Your task to perform on an android device: What is the recent news? Image 0: 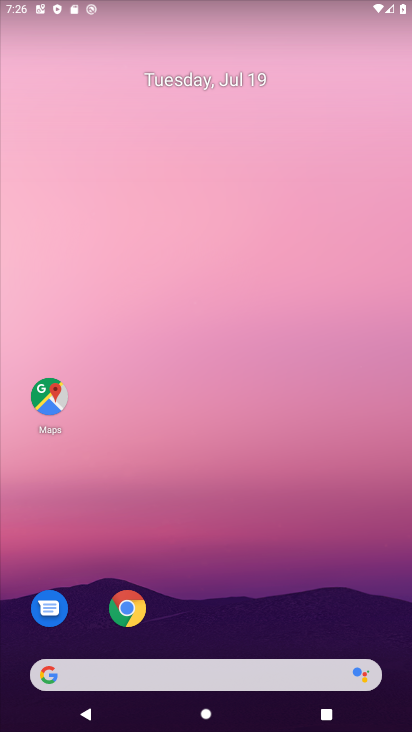
Step 0: click (187, 672)
Your task to perform on an android device: What is the recent news? Image 1: 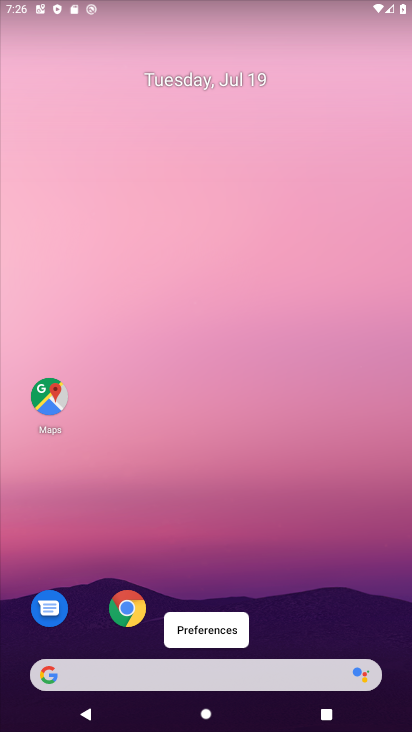
Step 1: click (151, 671)
Your task to perform on an android device: What is the recent news? Image 2: 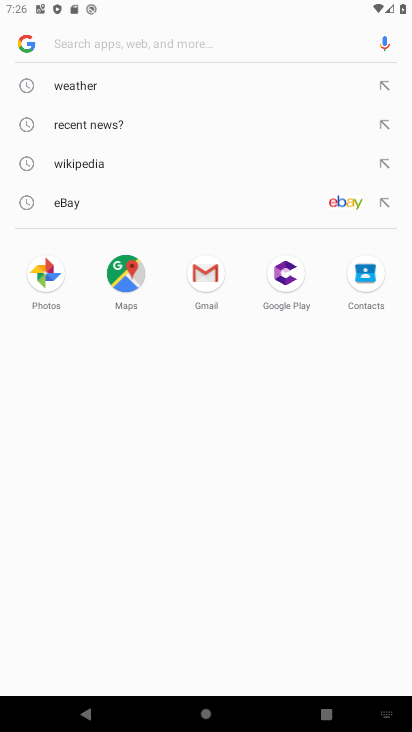
Step 2: click (96, 120)
Your task to perform on an android device: What is the recent news? Image 3: 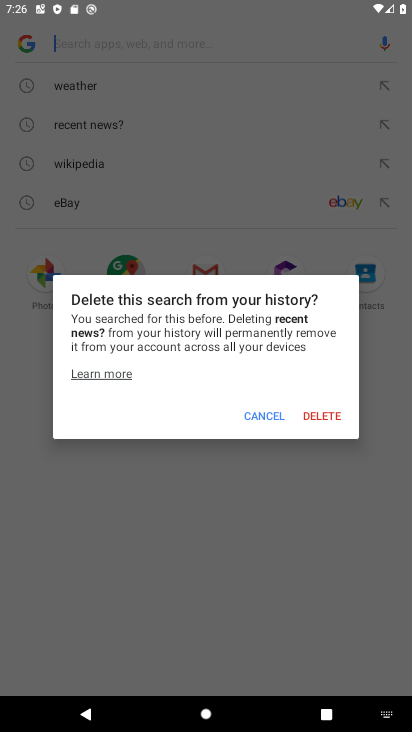
Step 3: click (268, 411)
Your task to perform on an android device: What is the recent news? Image 4: 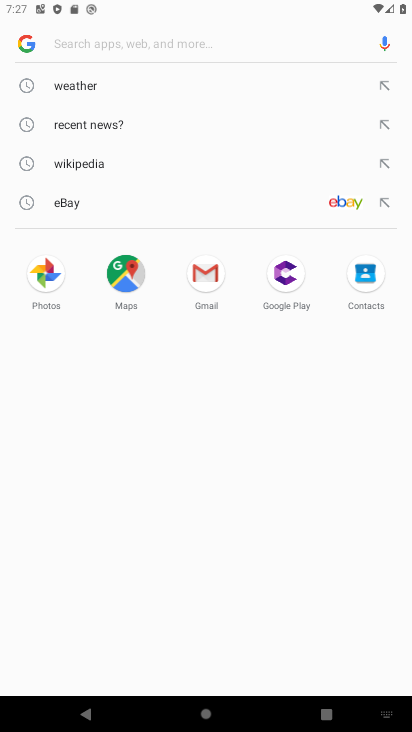
Step 4: click (101, 126)
Your task to perform on an android device: What is the recent news? Image 5: 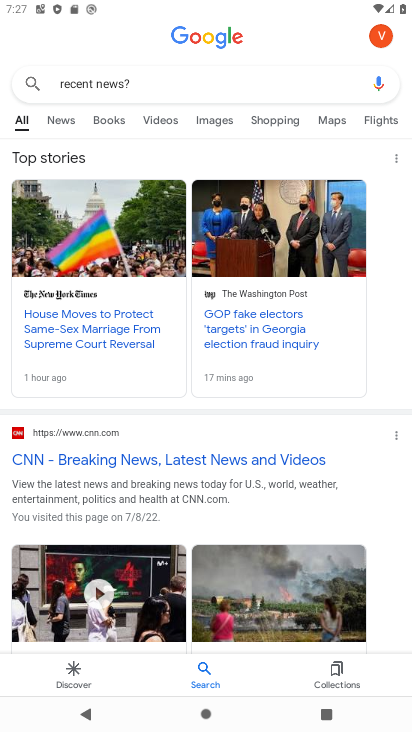
Step 5: click (57, 125)
Your task to perform on an android device: What is the recent news? Image 6: 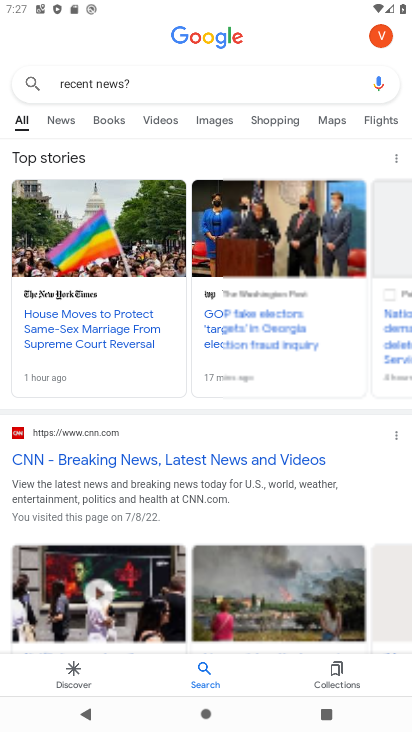
Step 6: click (61, 121)
Your task to perform on an android device: What is the recent news? Image 7: 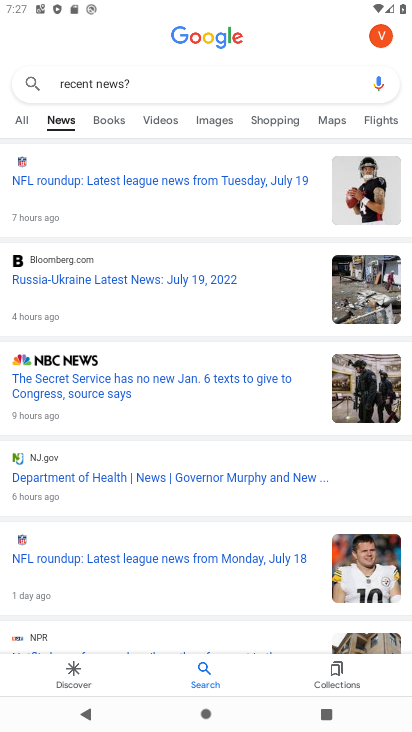
Step 7: task complete